Your task to perform on an android device: Open the stopwatch Image 0: 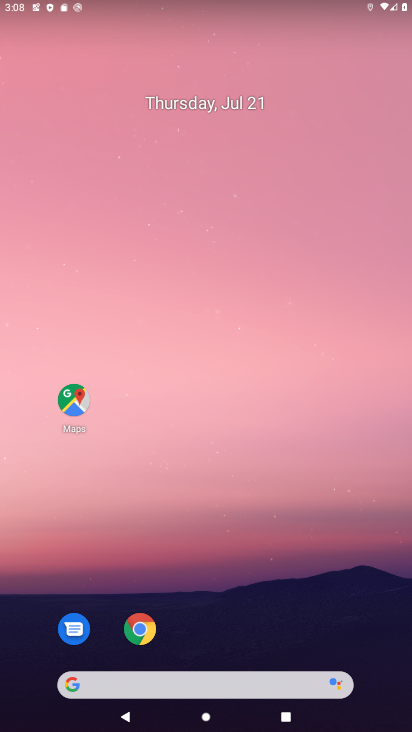
Step 0: drag from (205, 659) to (208, 163)
Your task to perform on an android device: Open the stopwatch Image 1: 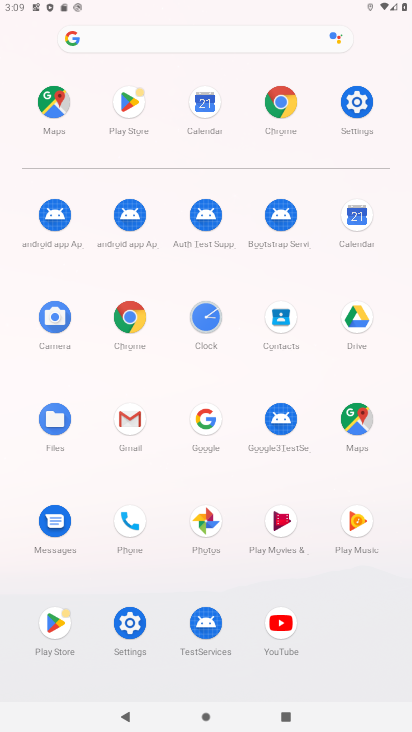
Step 1: click (204, 341)
Your task to perform on an android device: Open the stopwatch Image 2: 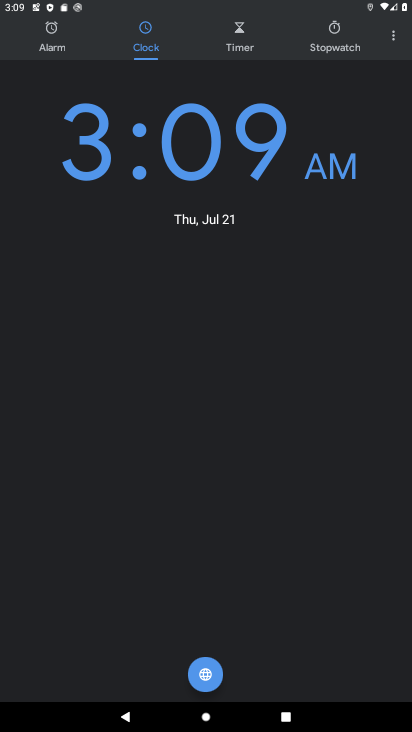
Step 2: click (326, 49)
Your task to perform on an android device: Open the stopwatch Image 3: 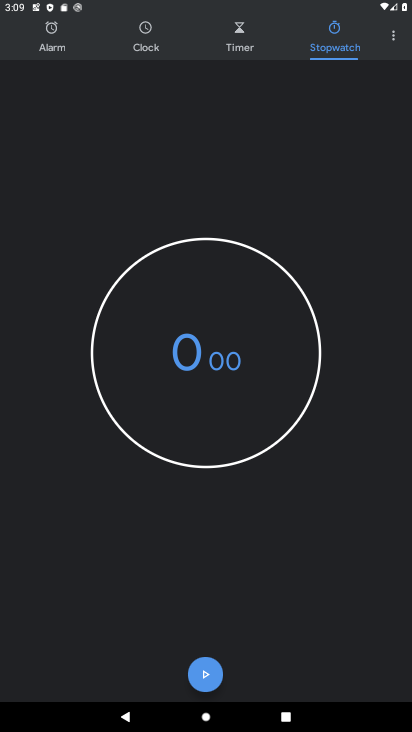
Step 3: click (210, 680)
Your task to perform on an android device: Open the stopwatch Image 4: 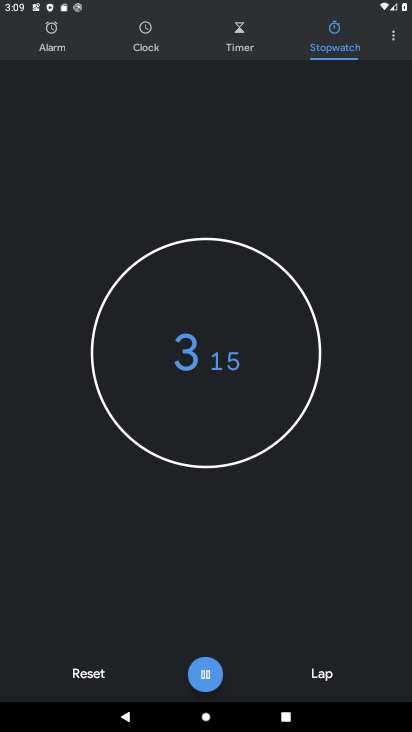
Step 4: task complete